Your task to perform on an android device: stop showing notifications on the lock screen Image 0: 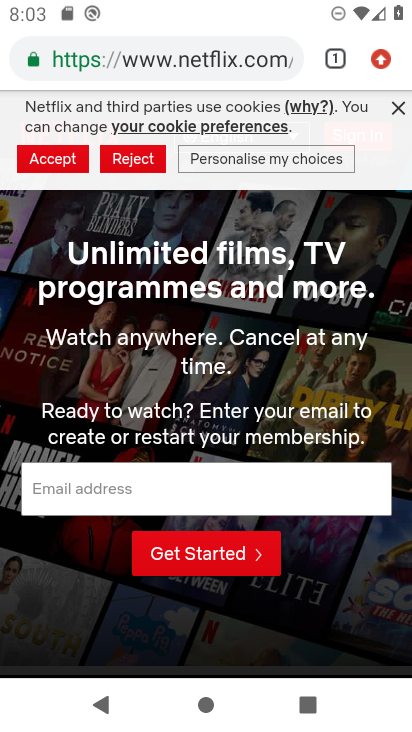
Step 0: press home button
Your task to perform on an android device: stop showing notifications on the lock screen Image 1: 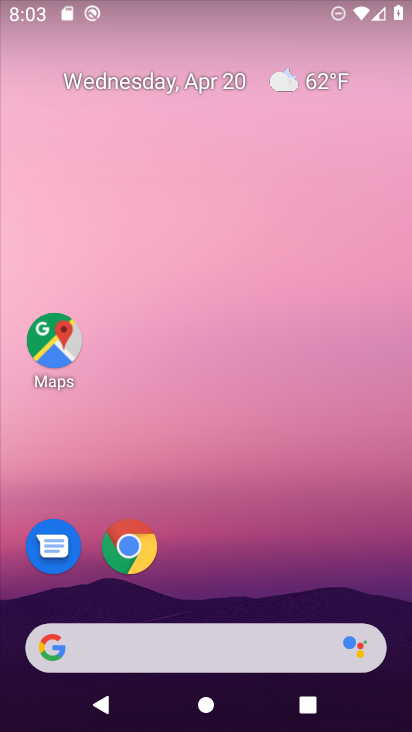
Step 1: drag from (231, 552) to (218, 80)
Your task to perform on an android device: stop showing notifications on the lock screen Image 2: 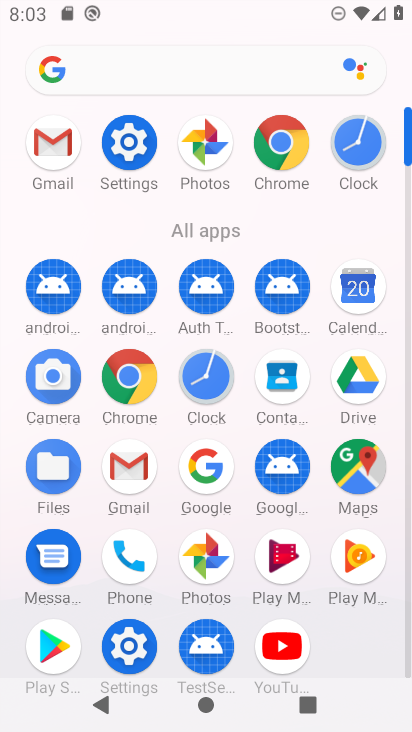
Step 2: click (132, 140)
Your task to perform on an android device: stop showing notifications on the lock screen Image 3: 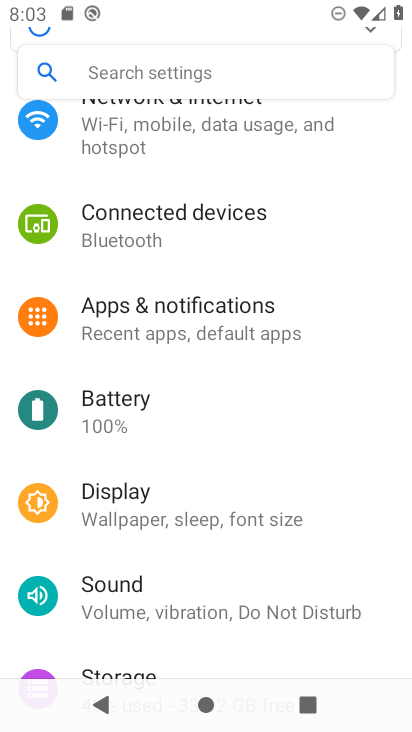
Step 3: click (179, 322)
Your task to perform on an android device: stop showing notifications on the lock screen Image 4: 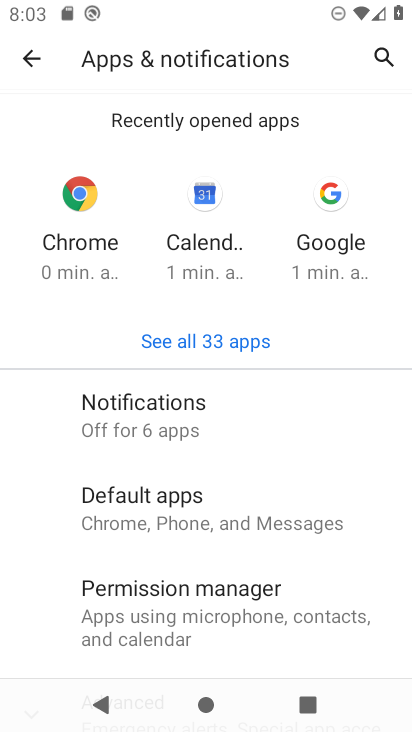
Step 4: drag from (234, 555) to (289, 303)
Your task to perform on an android device: stop showing notifications on the lock screen Image 5: 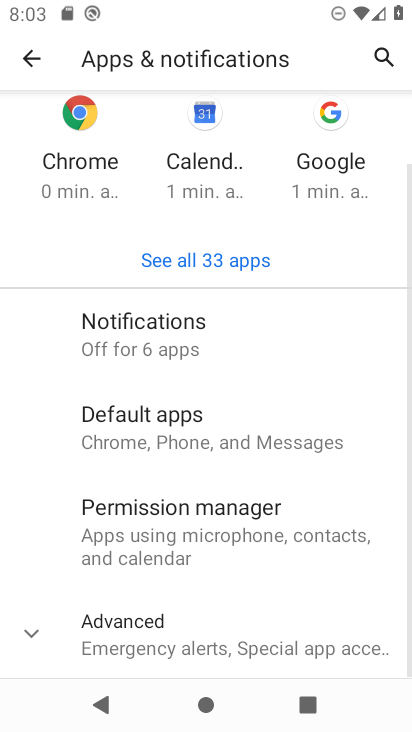
Step 5: click (266, 331)
Your task to perform on an android device: stop showing notifications on the lock screen Image 6: 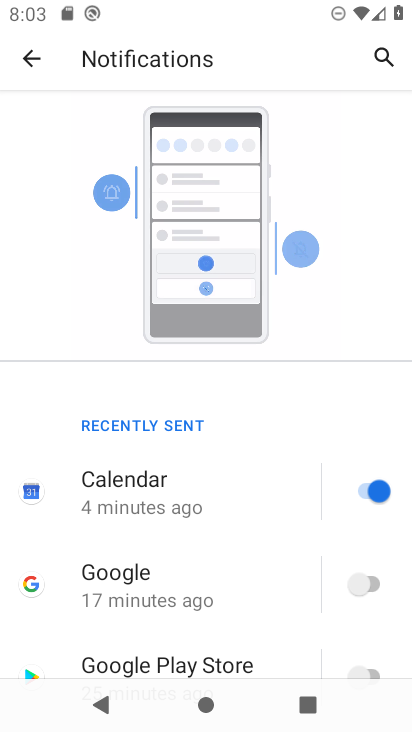
Step 6: drag from (236, 564) to (258, 101)
Your task to perform on an android device: stop showing notifications on the lock screen Image 7: 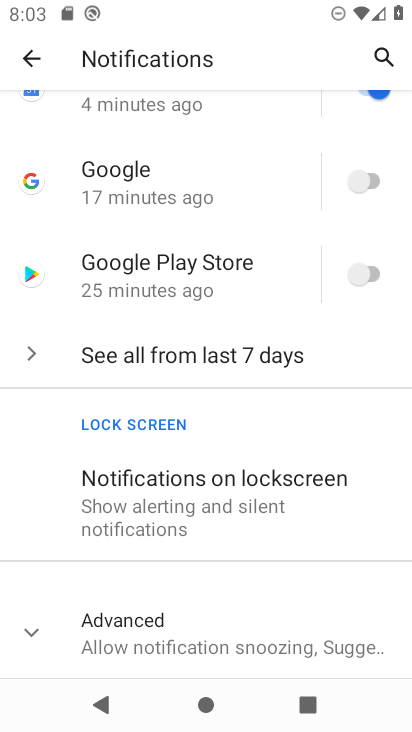
Step 7: click (233, 500)
Your task to perform on an android device: stop showing notifications on the lock screen Image 8: 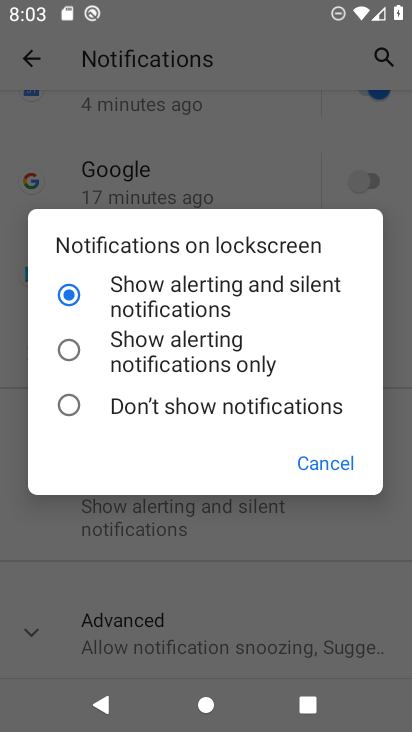
Step 8: click (69, 404)
Your task to perform on an android device: stop showing notifications on the lock screen Image 9: 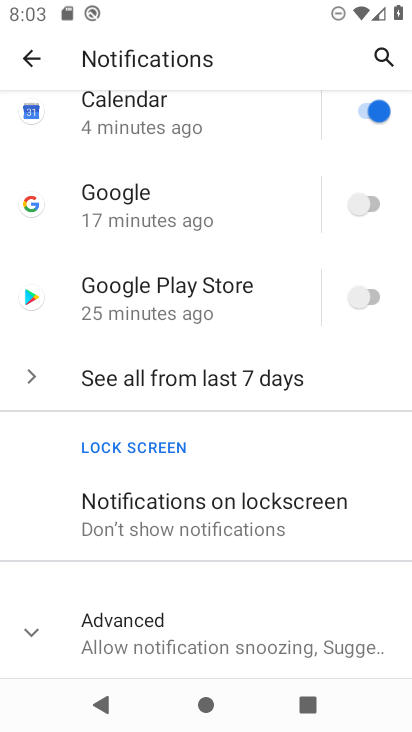
Step 9: task complete